Your task to perform on an android device: Go to Google Image 0: 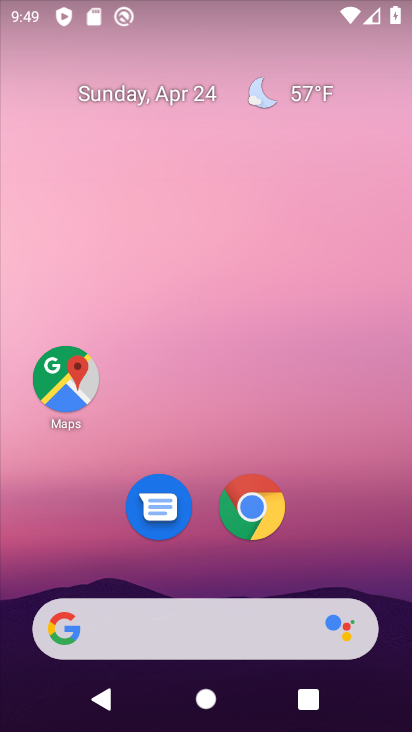
Step 0: drag from (138, 548) to (240, 23)
Your task to perform on an android device: Go to Google Image 1: 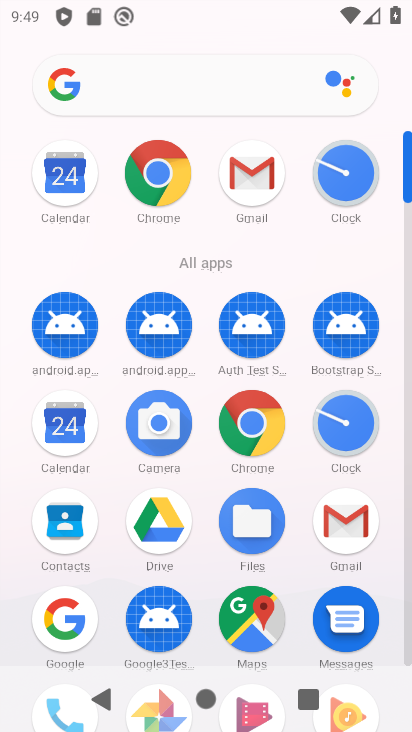
Step 1: click (66, 635)
Your task to perform on an android device: Go to Google Image 2: 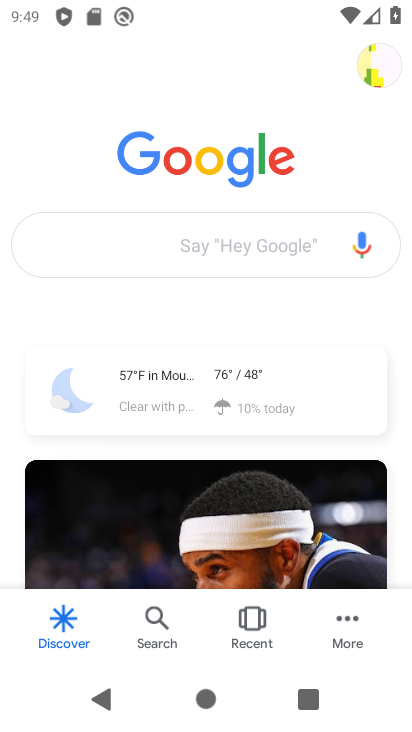
Step 2: task complete